Your task to perform on an android device: open app "DoorDash - Dasher" (install if not already installed) Image 0: 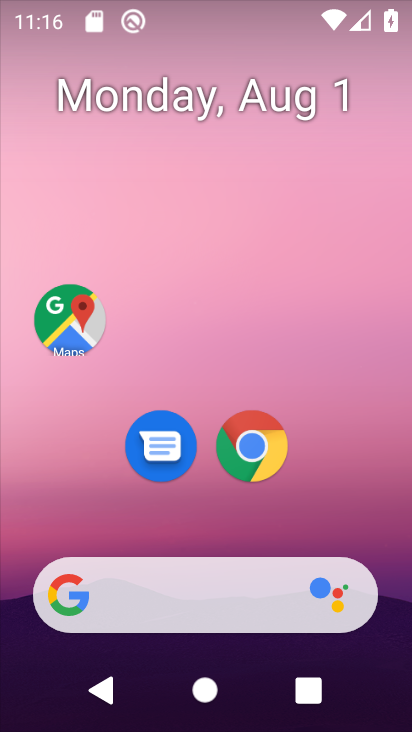
Step 0: drag from (196, 526) to (305, 5)
Your task to perform on an android device: open app "DoorDash - Dasher" (install if not already installed) Image 1: 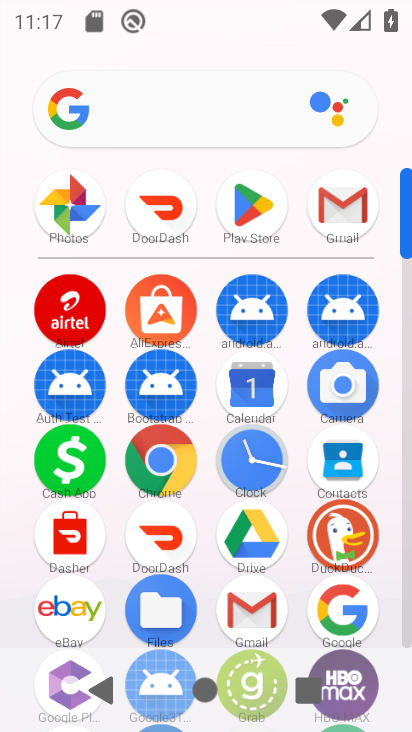
Step 1: click (263, 226)
Your task to perform on an android device: open app "DoorDash - Dasher" (install if not already installed) Image 2: 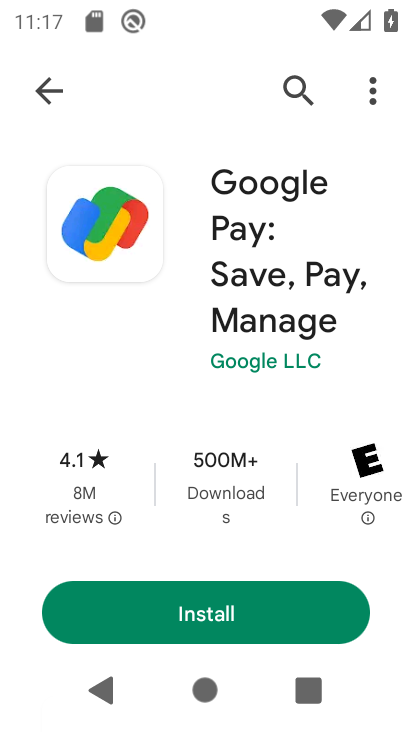
Step 2: click (290, 78)
Your task to perform on an android device: open app "DoorDash - Dasher" (install if not already installed) Image 3: 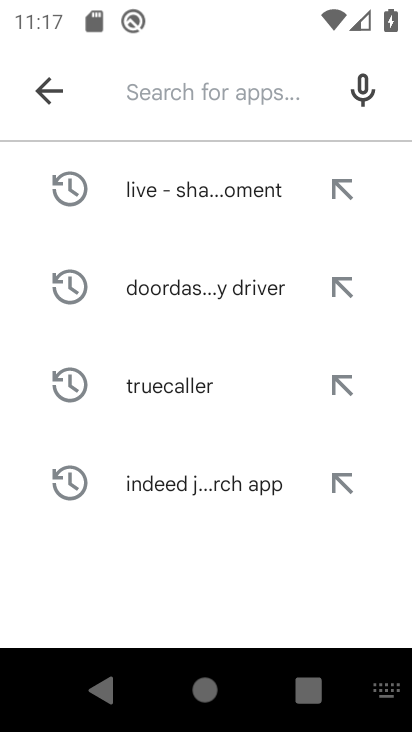
Step 3: type "DoorDash - Dasher"
Your task to perform on an android device: open app "DoorDash - Dasher" (install if not already installed) Image 4: 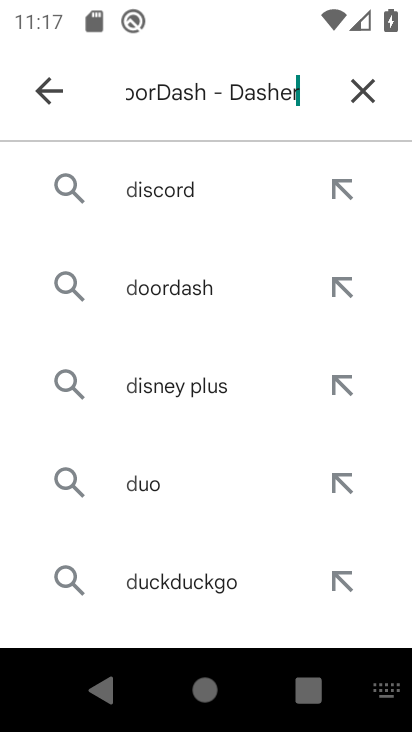
Step 4: type ""
Your task to perform on an android device: open app "DoorDash - Dasher" (install if not already installed) Image 5: 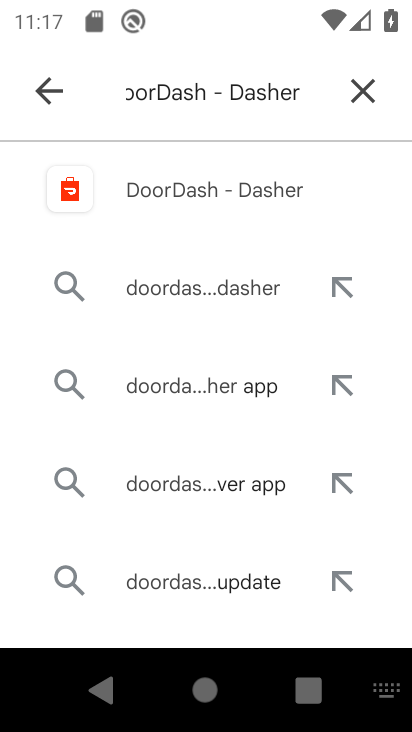
Step 5: click (187, 181)
Your task to perform on an android device: open app "DoorDash - Dasher" (install if not already installed) Image 6: 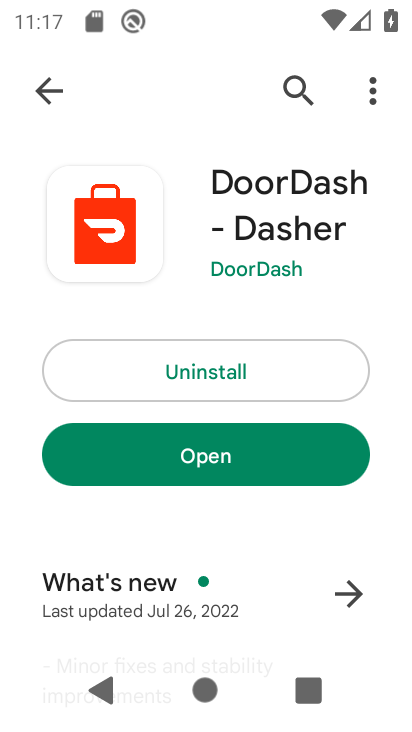
Step 6: click (292, 460)
Your task to perform on an android device: open app "DoorDash - Dasher" (install if not already installed) Image 7: 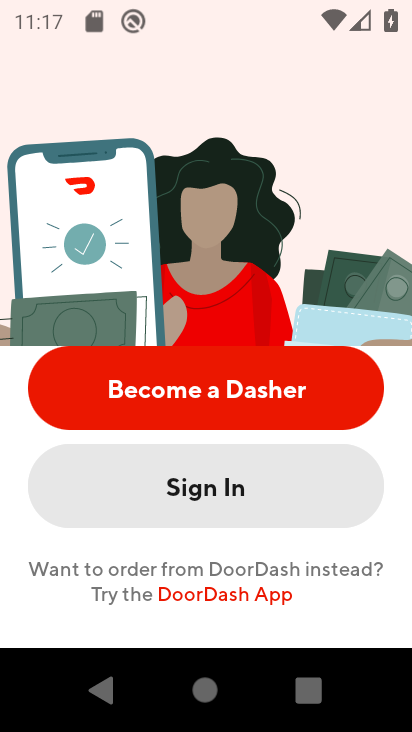
Step 7: task complete